Your task to perform on an android device: Go to Android settings Image 0: 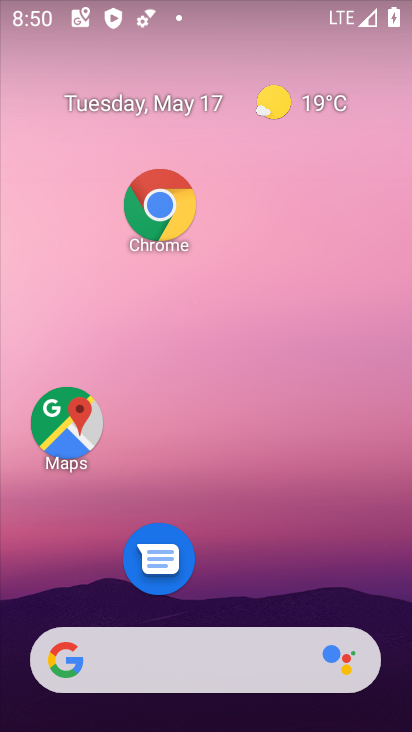
Step 0: click (192, 46)
Your task to perform on an android device: Go to Android settings Image 1: 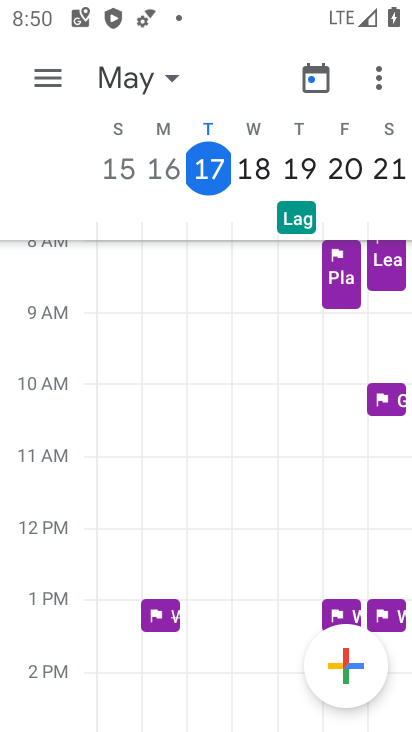
Step 1: click (58, 86)
Your task to perform on an android device: Go to Android settings Image 2: 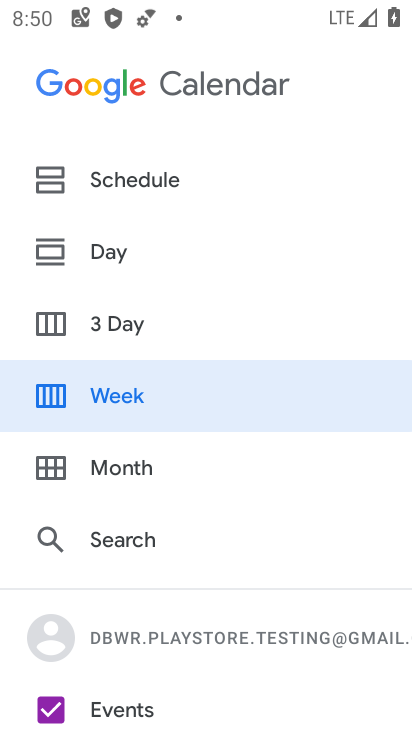
Step 2: drag from (225, 686) to (225, 219)
Your task to perform on an android device: Go to Android settings Image 3: 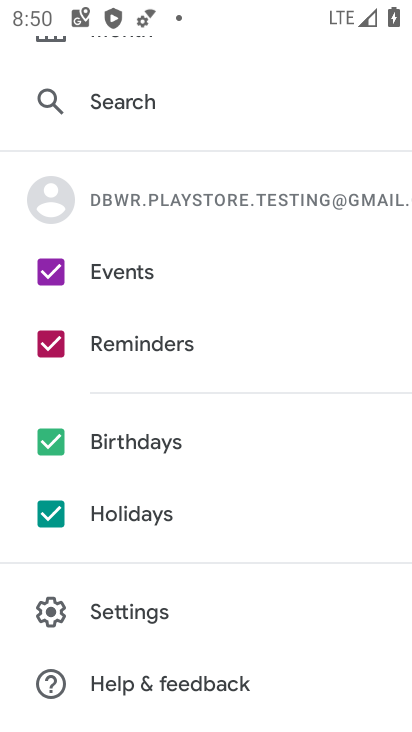
Step 3: press home button
Your task to perform on an android device: Go to Android settings Image 4: 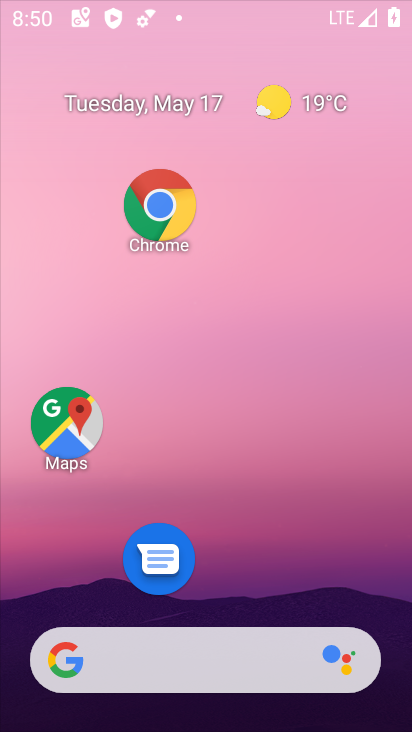
Step 4: drag from (185, 595) to (237, 61)
Your task to perform on an android device: Go to Android settings Image 5: 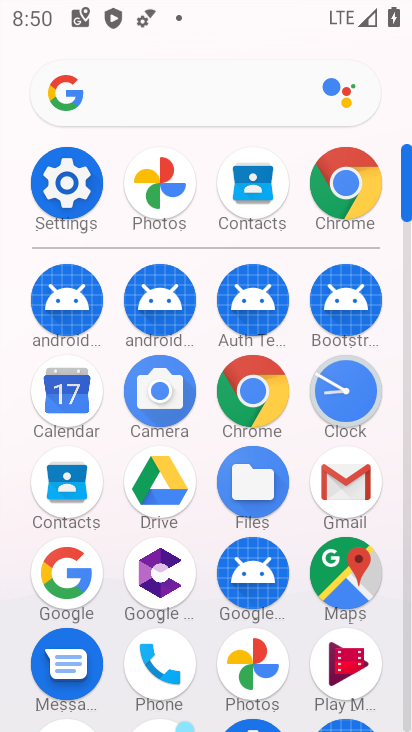
Step 5: click (84, 192)
Your task to perform on an android device: Go to Android settings Image 6: 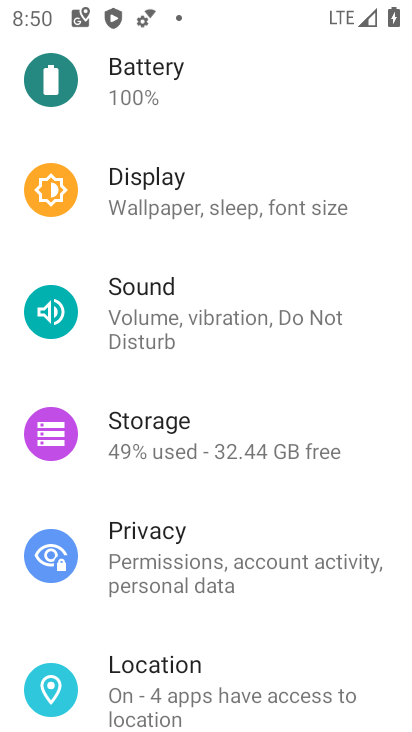
Step 6: drag from (220, 661) to (242, 165)
Your task to perform on an android device: Go to Android settings Image 7: 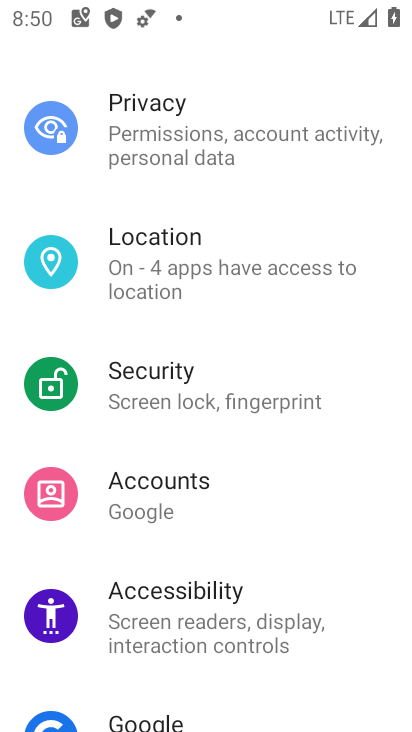
Step 7: drag from (213, 658) to (273, 143)
Your task to perform on an android device: Go to Android settings Image 8: 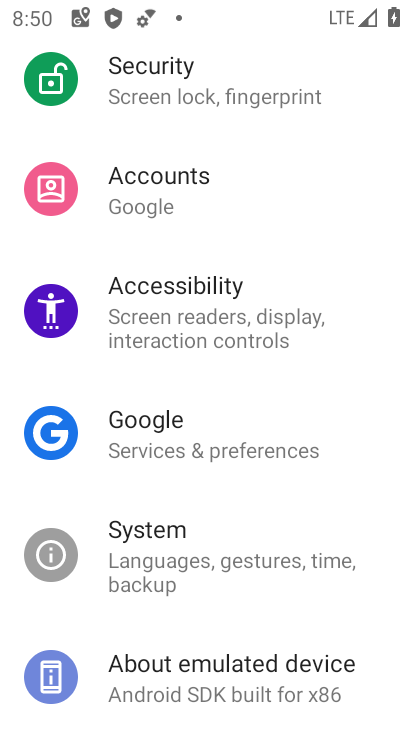
Step 8: click (168, 678)
Your task to perform on an android device: Go to Android settings Image 9: 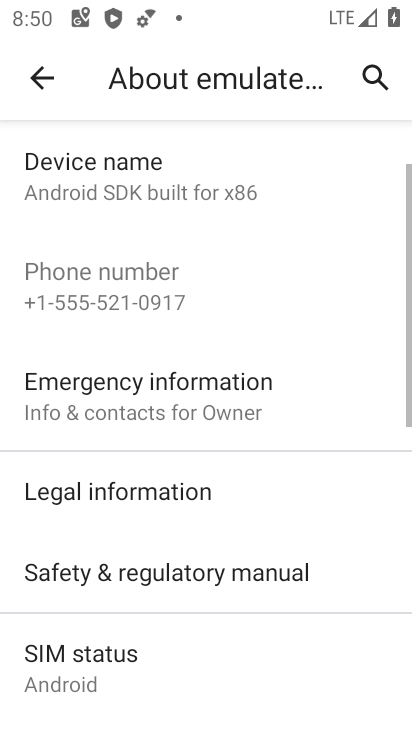
Step 9: drag from (173, 642) to (200, 203)
Your task to perform on an android device: Go to Android settings Image 10: 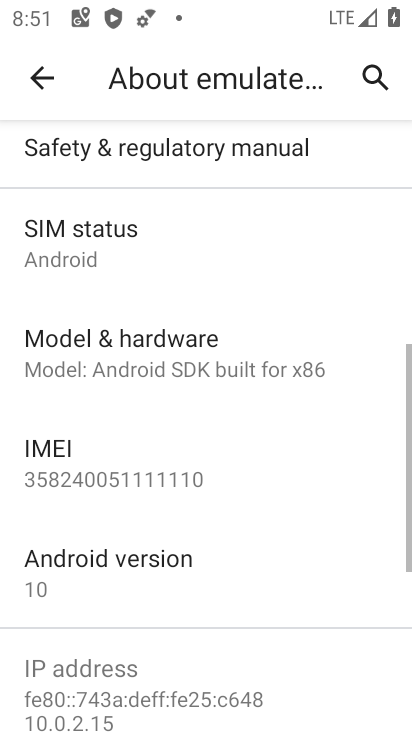
Step 10: drag from (172, 569) to (172, 252)
Your task to perform on an android device: Go to Android settings Image 11: 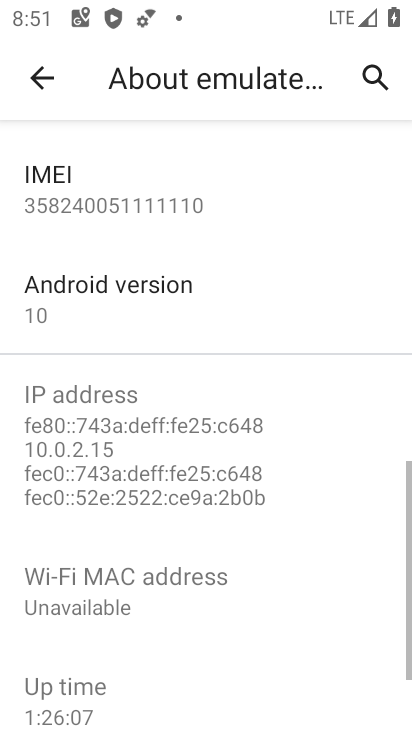
Step 11: click (133, 304)
Your task to perform on an android device: Go to Android settings Image 12: 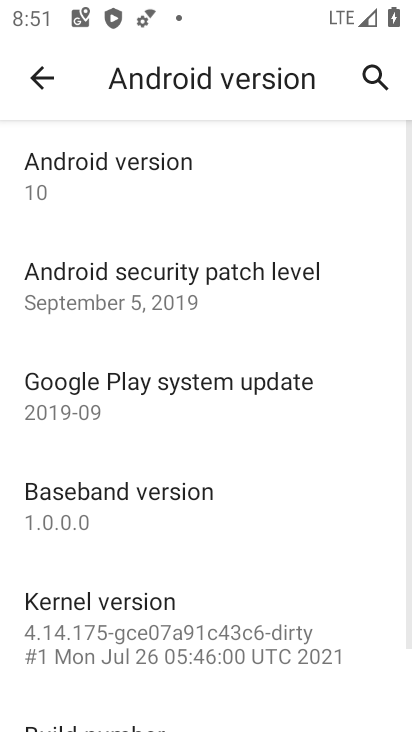
Step 12: click (209, 196)
Your task to perform on an android device: Go to Android settings Image 13: 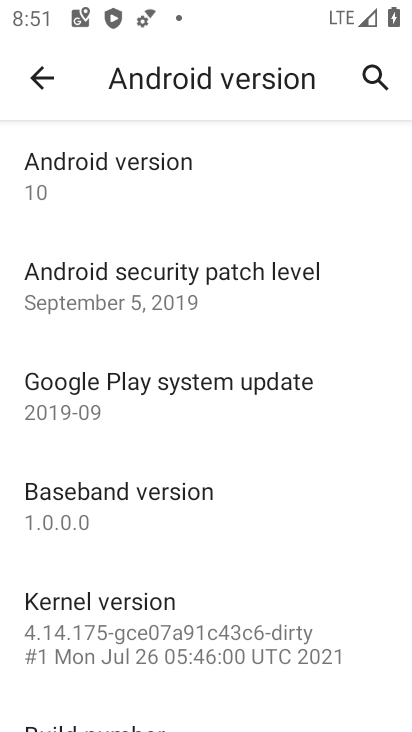
Step 13: task complete